Your task to perform on an android device: change timer sound Image 0: 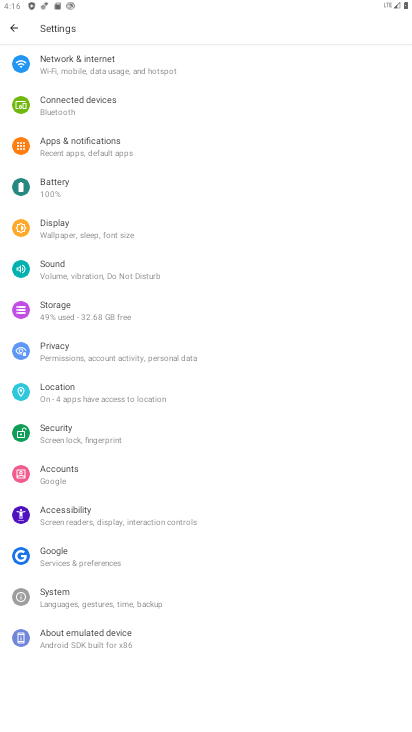
Step 0: press home button
Your task to perform on an android device: change timer sound Image 1: 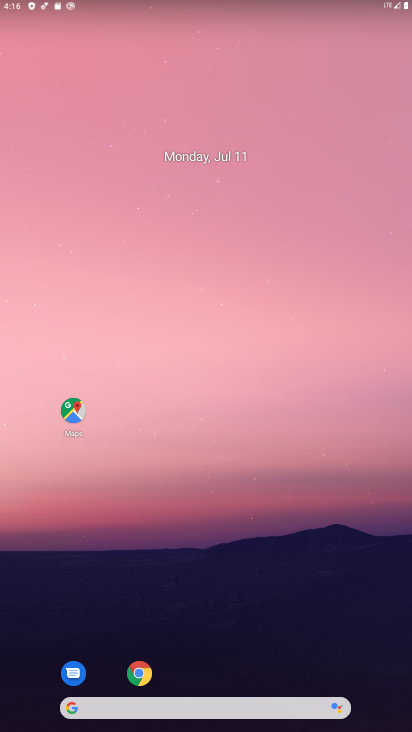
Step 1: drag from (273, 633) to (212, 74)
Your task to perform on an android device: change timer sound Image 2: 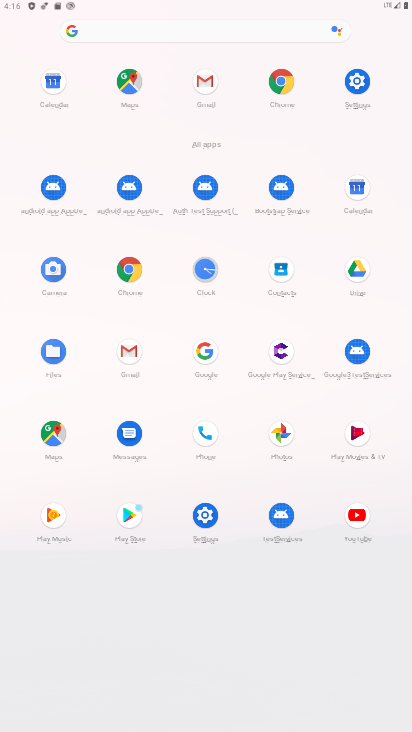
Step 2: click (202, 268)
Your task to perform on an android device: change timer sound Image 3: 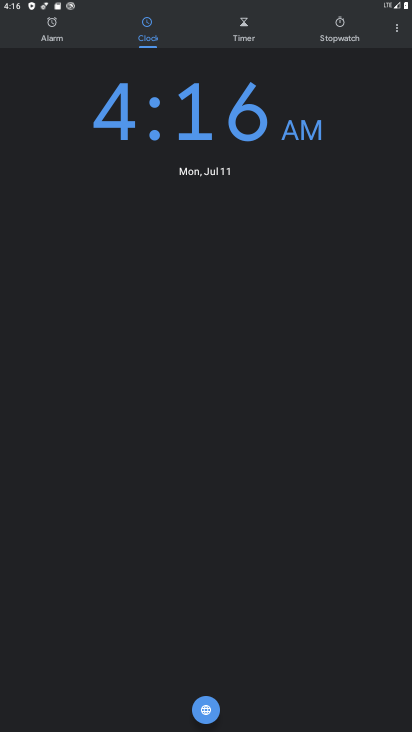
Step 3: click (395, 25)
Your task to perform on an android device: change timer sound Image 4: 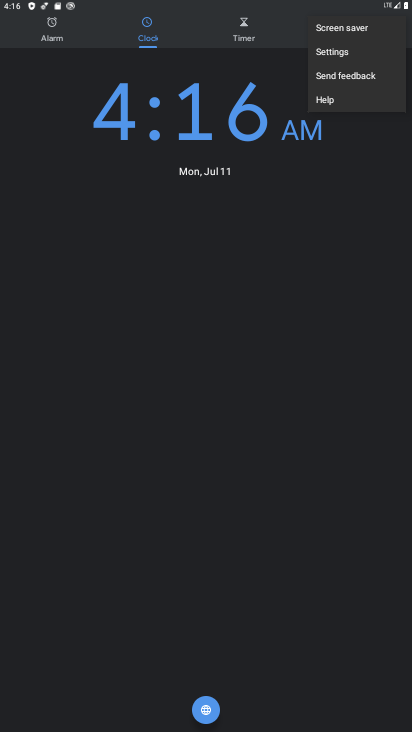
Step 4: click (338, 52)
Your task to perform on an android device: change timer sound Image 5: 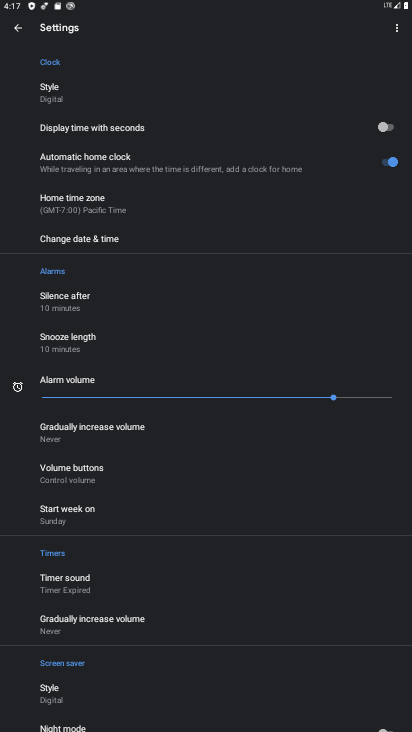
Step 5: click (75, 588)
Your task to perform on an android device: change timer sound Image 6: 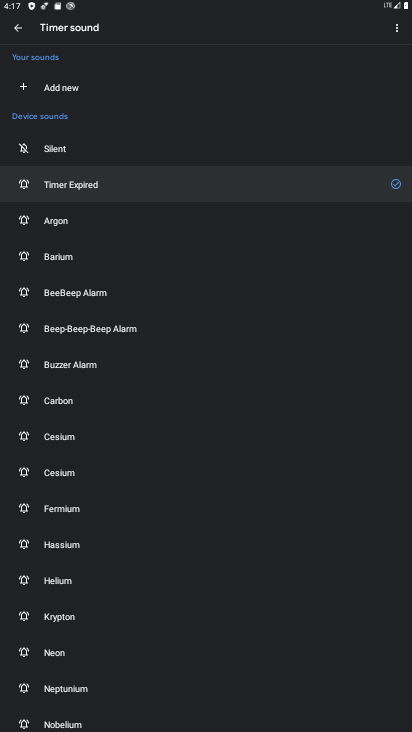
Step 6: click (72, 225)
Your task to perform on an android device: change timer sound Image 7: 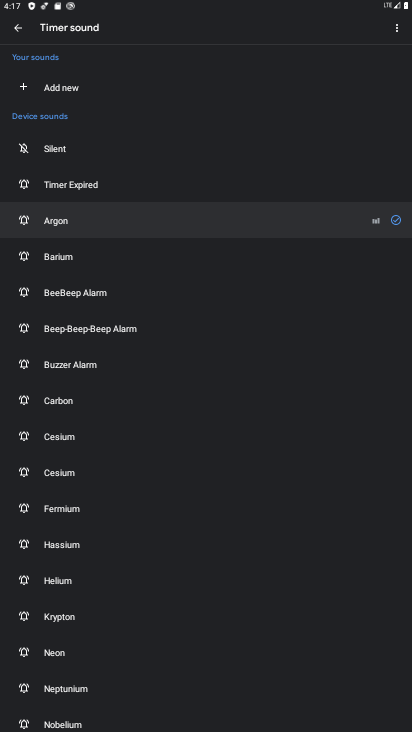
Step 7: task complete